Your task to perform on an android device: turn on sleep mode Image 0: 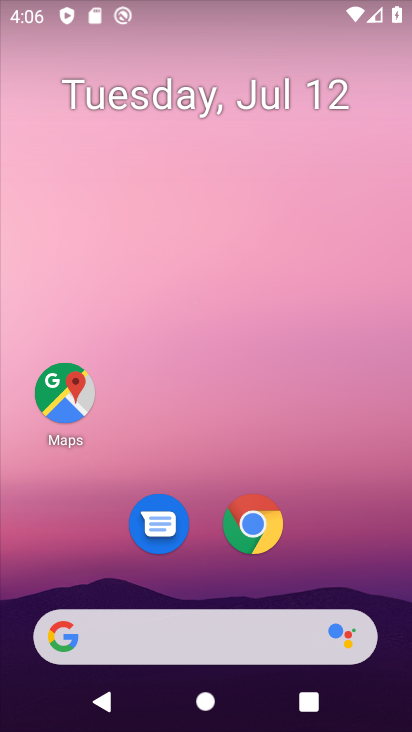
Step 0: drag from (327, 545) to (314, 58)
Your task to perform on an android device: turn on sleep mode Image 1: 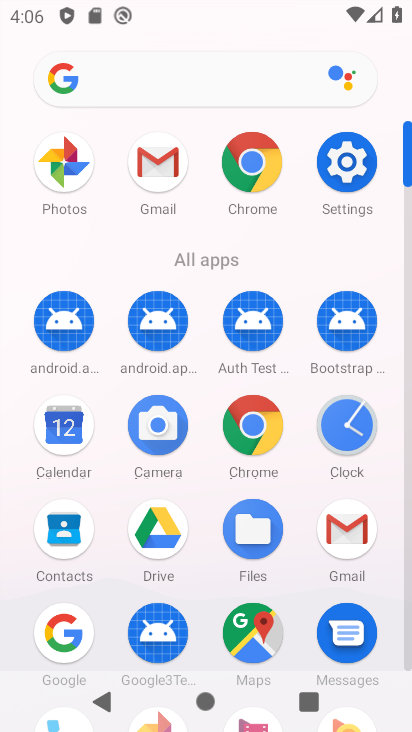
Step 1: click (353, 170)
Your task to perform on an android device: turn on sleep mode Image 2: 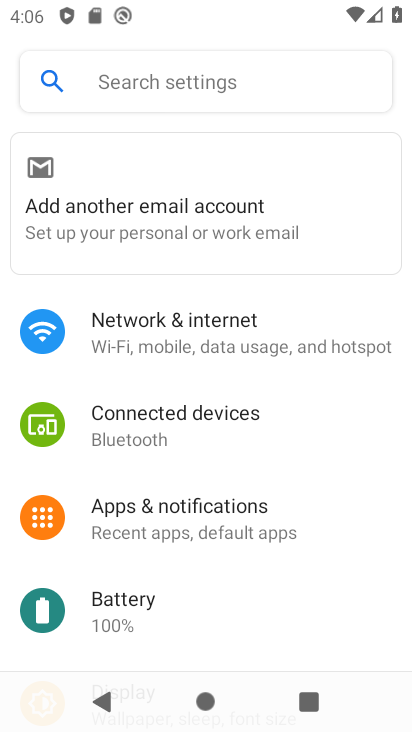
Step 2: drag from (243, 572) to (258, 89)
Your task to perform on an android device: turn on sleep mode Image 3: 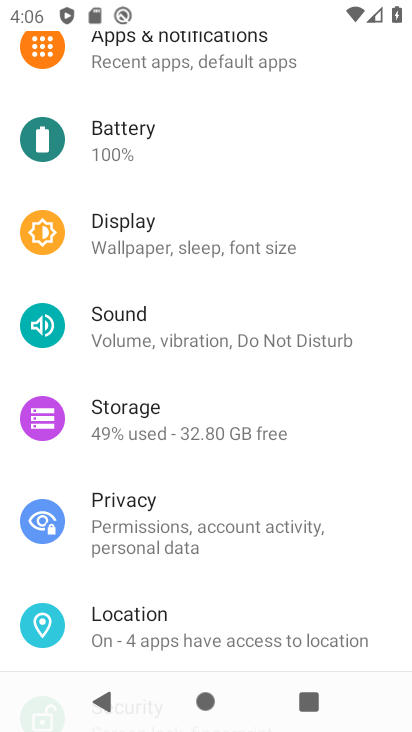
Step 3: click (211, 243)
Your task to perform on an android device: turn on sleep mode Image 4: 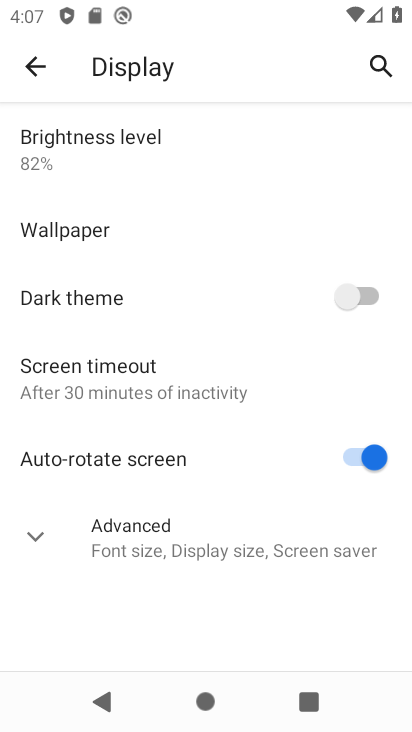
Step 4: click (38, 529)
Your task to perform on an android device: turn on sleep mode Image 5: 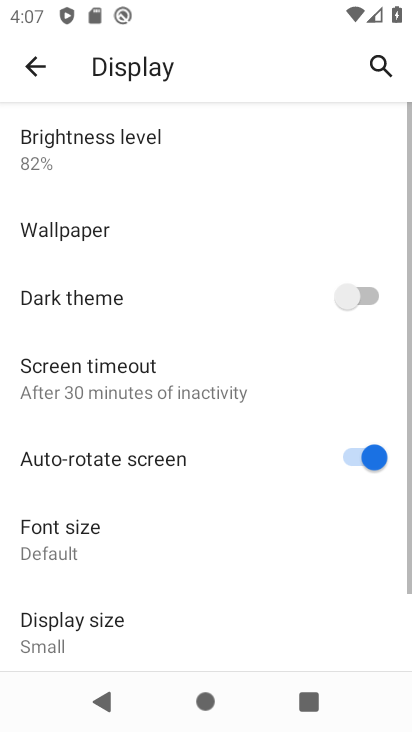
Step 5: task complete